Your task to perform on an android device: Open Wikipedia Image 0: 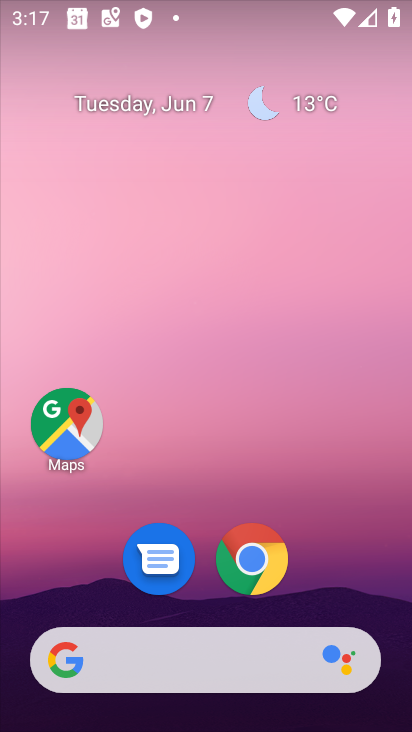
Step 0: click (248, 559)
Your task to perform on an android device: Open Wikipedia Image 1: 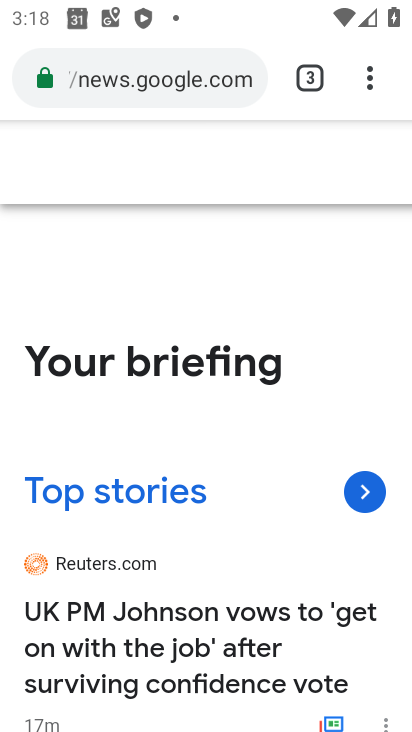
Step 1: click (250, 79)
Your task to perform on an android device: Open Wikipedia Image 2: 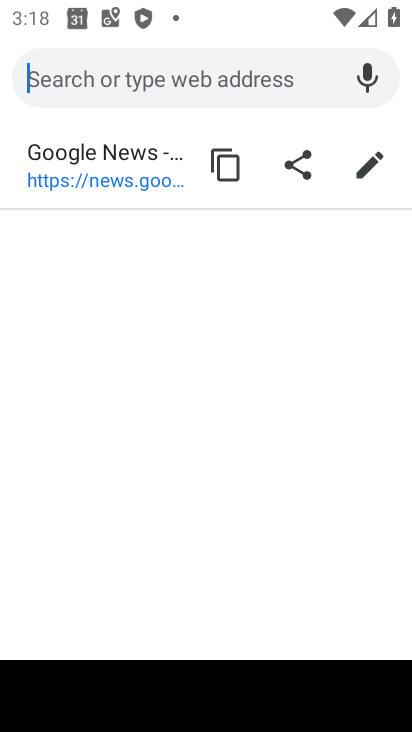
Step 2: type "Wikipedia"
Your task to perform on an android device: Open Wikipedia Image 3: 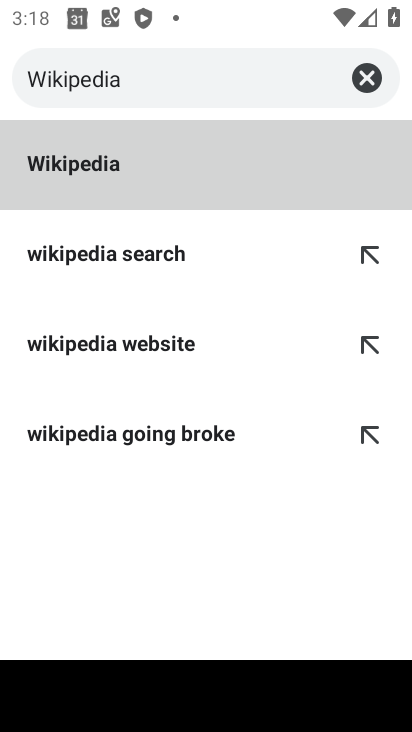
Step 3: click (99, 164)
Your task to perform on an android device: Open Wikipedia Image 4: 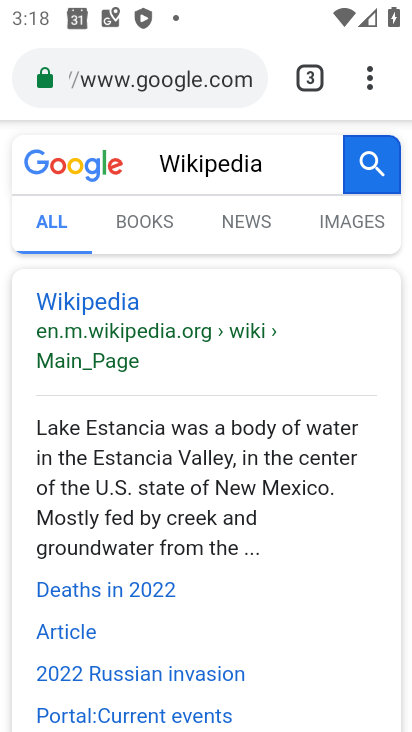
Step 4: click (122, 305)
Your task to perform on an android device: Open Wikipedia Image 5: 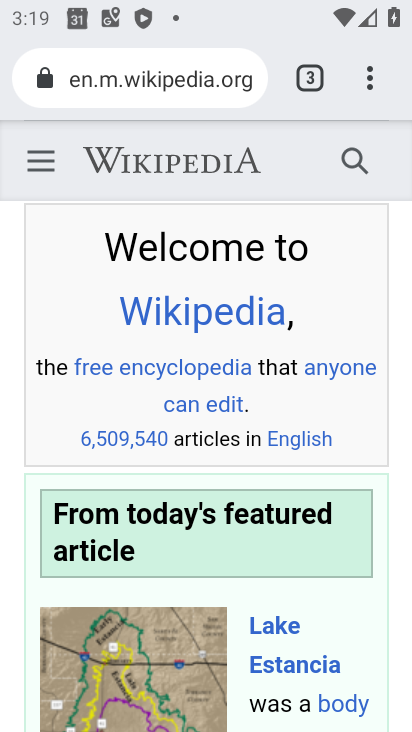
Step 5: task complete